Your task to perform on an android device: turn on showing notifications on the lock screen Image 0: 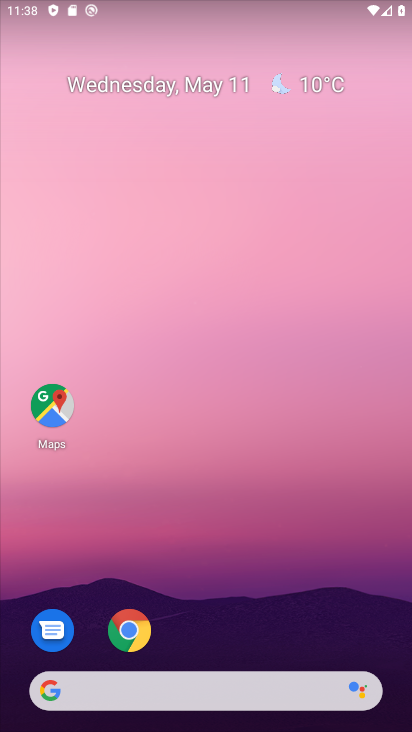
Step 0: drag from (164, 638) to (256, 46)
Your task to perform on an android device: turn on showing notifications on the lock screen Image 1: 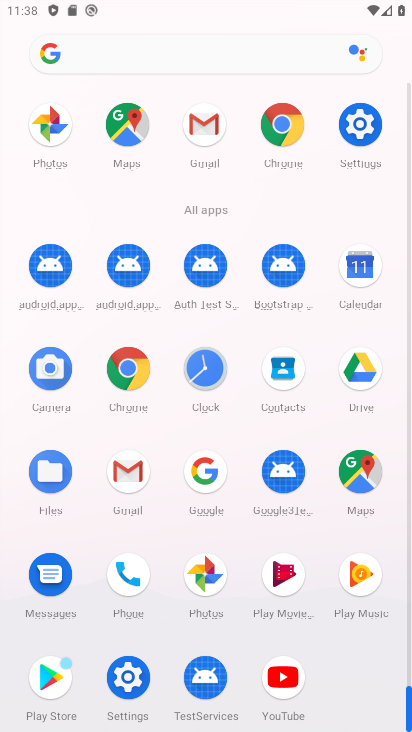
Step 1: click (120, 682)
Your task to perform on an android device: turn on showing notifications on the lock screen Image 2: 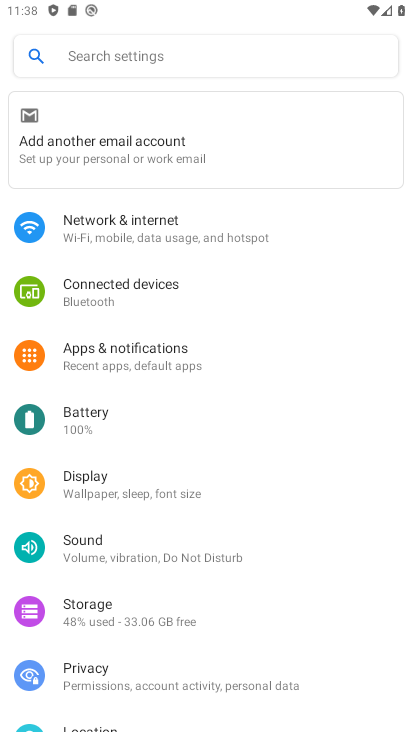
Step 2: click (156, 371)
Your task to perform on an android device: turn on showing notifications on the lock screen Image 3: 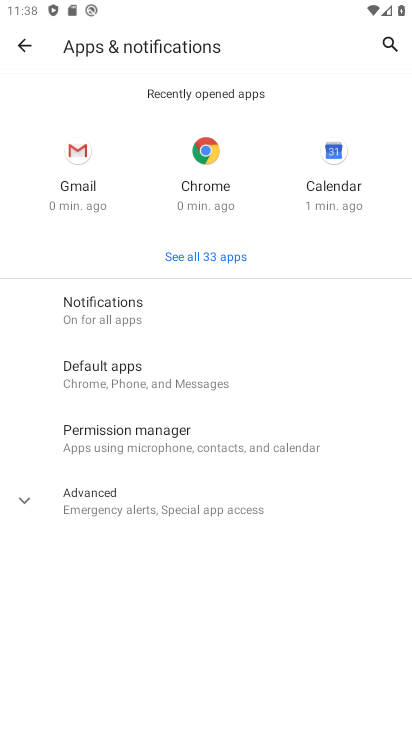
Step 3: click (169, 304)
Your task to perform on an android device: turn on showing notifications on the lock screen Image 4: 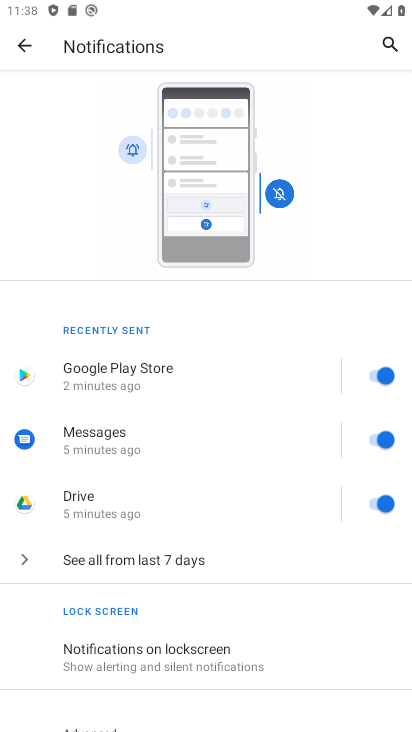
Step 4: click (123, 662)
Your task to perform on an android device: turn on showing notifications on the lock screen Image 5: 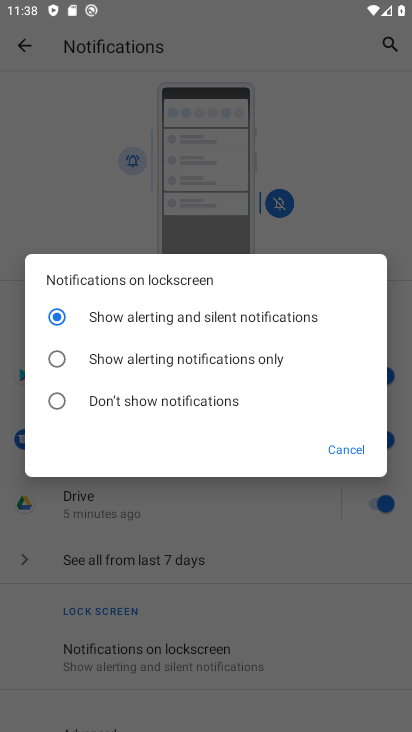
Step 5: task complete